Your task to perform on an android device: check storage Image 0: 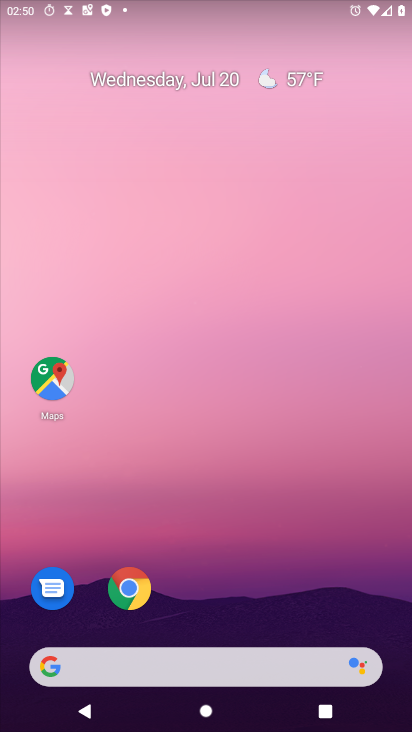
Step 0: drag from (306, 619) to (210, 4)
Your task to perform on an android device: check storage Image 1: 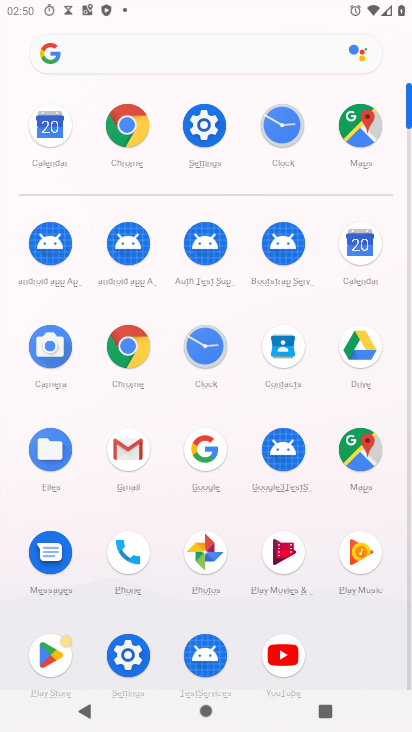
Step 1: click (210, 124)
Your task to perform on an android device: check storage Image 2: 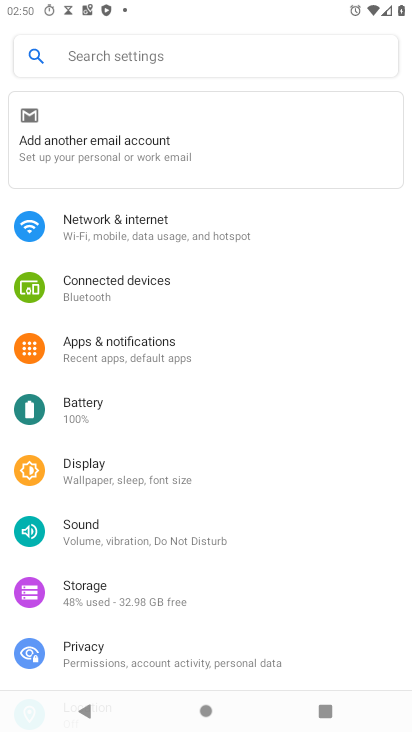
Step 2: click (103, 590)
Your task to perform on an android device: check storage Image 3: 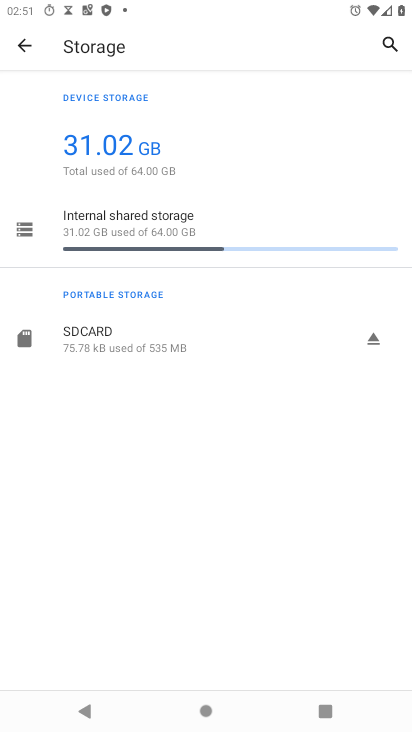
Step 3: task complete